Your task to perform on an android device: Open Chrome and go to settings Image 0: 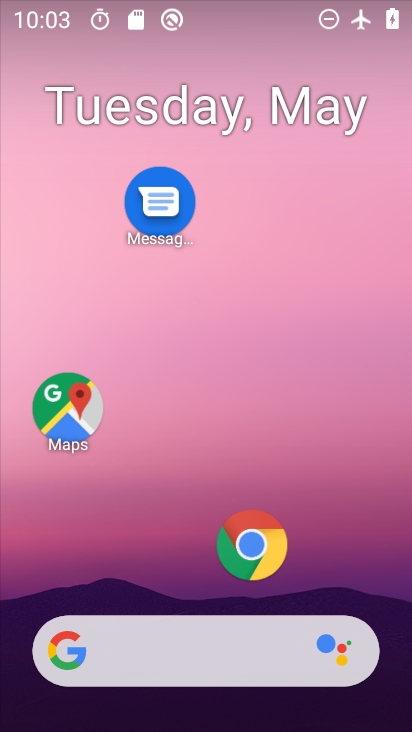
Step 0: click (243, 532)
Your task to perform on an android device: Open Chrome and go to settings Image 1: 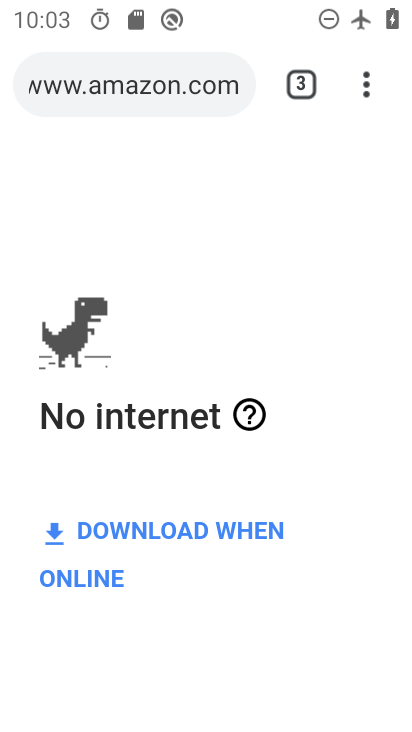
Step 1: task complete